Your task to perform on an android device: open a new tab in the chrome app Image 0: 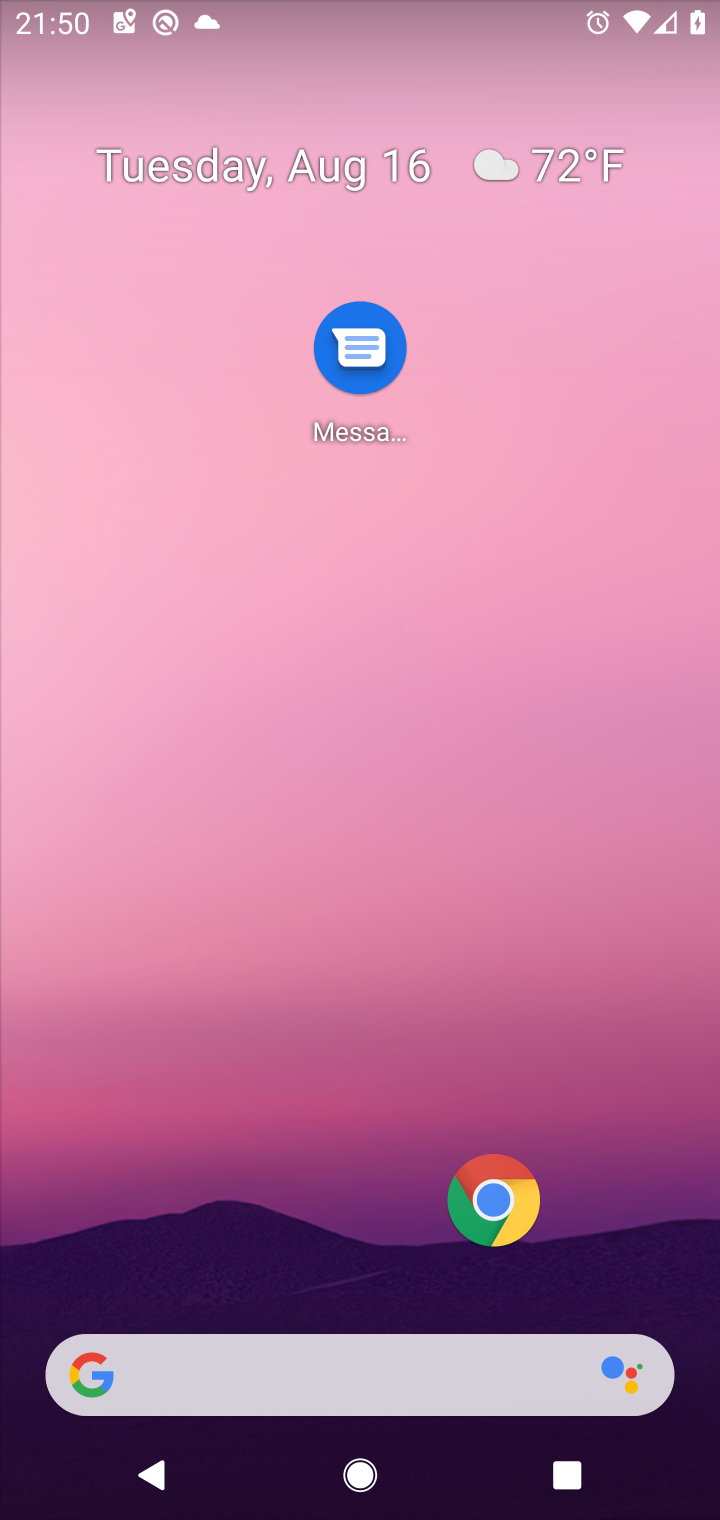
Step 0: click (488, 1206)
Your task to perform on an android device: open a new tab in the chrome app Image 1: 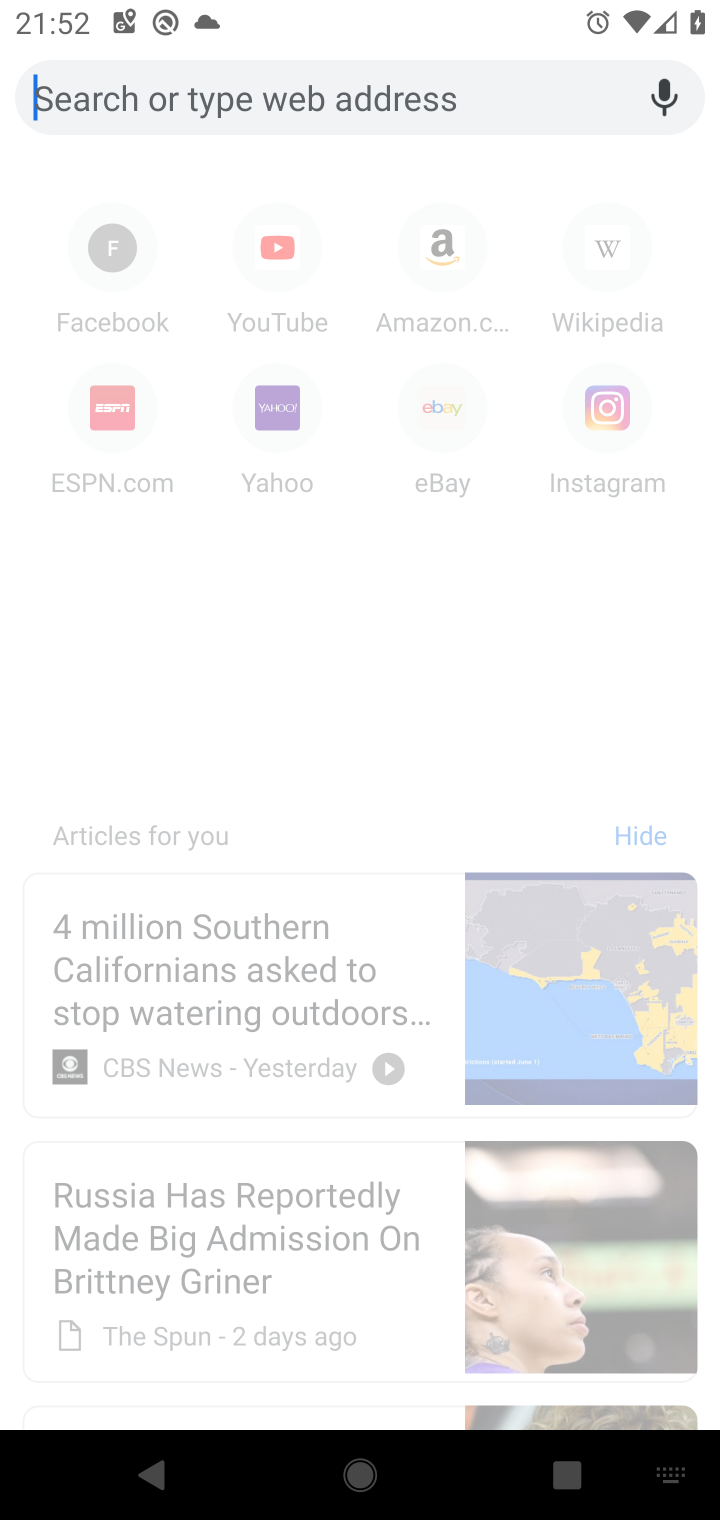
Step 1: task complete